Your task to perform on an android device: Go to Google maps Image 0: 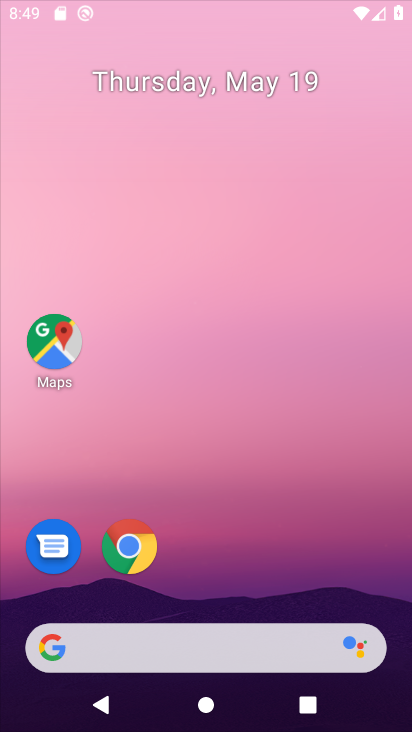
Step 0: press back button
Your task to perform on an android device: Go to Google maps Image 1: 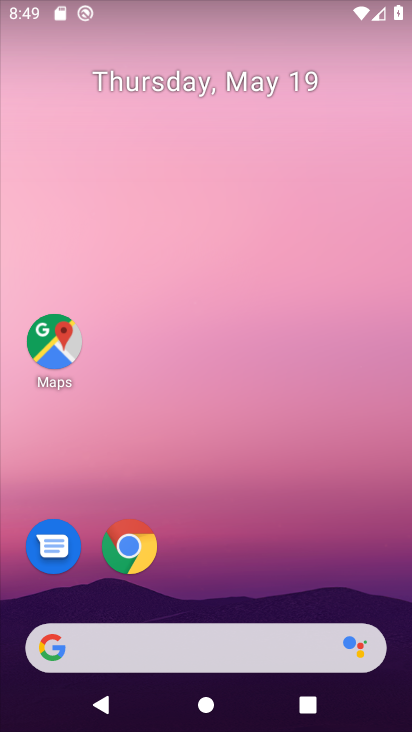
Step 1: drag from (296, 698) to (254, 135)
Your task to perform on an android device: Go to Google maps Image 2: 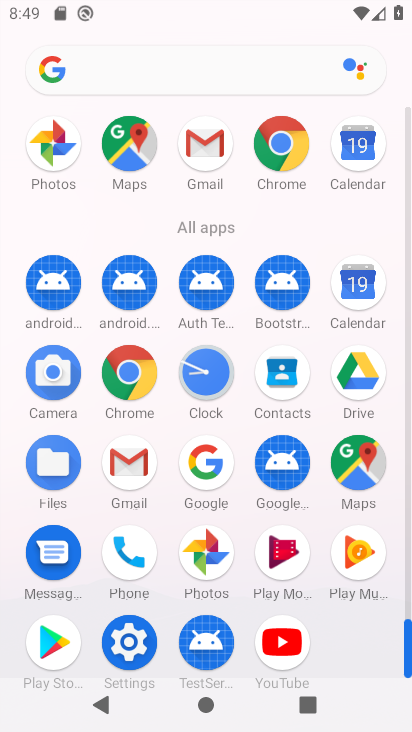
Step 2: click (353, 459)
Your task to perform on an android device: Go to Google maps Image 3: 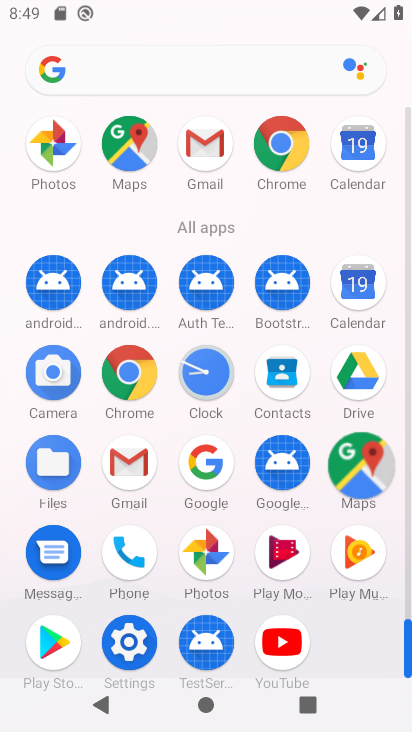
Step 3: click (354, 459)
Your task to perform on an android device: Go to Google maps Image 4: 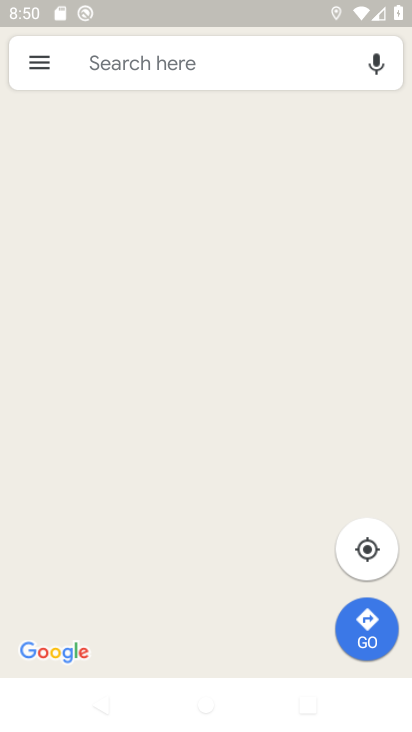
Step 4: press back button
Your task to perform on an android device: Go to Google maps Image 5: 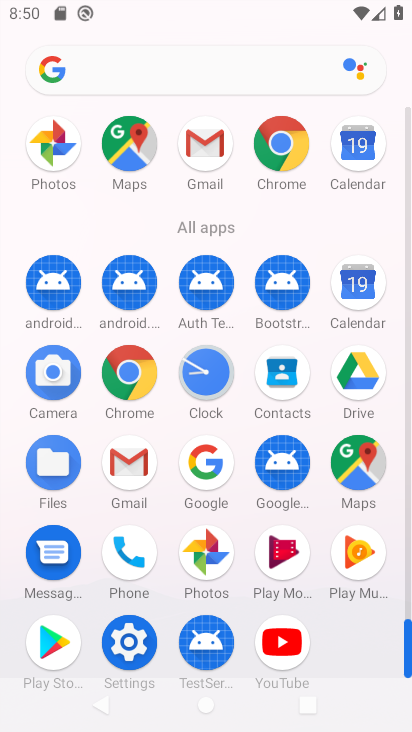
Step 5: click (344, 449)
Your task to perform on an android device: Go to Google maps Image 6: 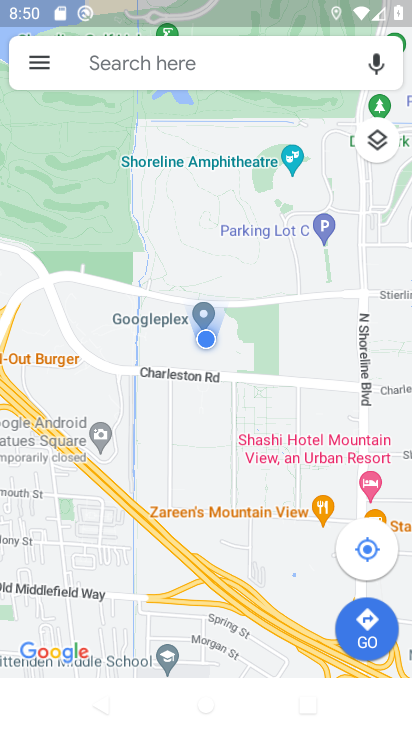
Step 6: press back button
Your task to perform on an android device: Go to Google maps Image 7: 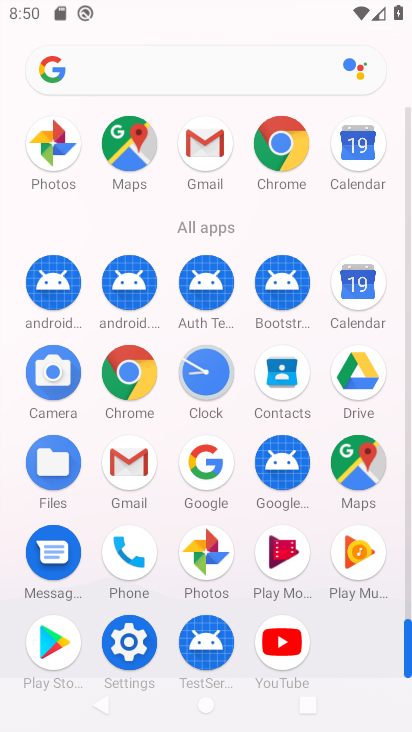
Step 7: click (352, 462)
Your task to perform on an android device: Go to Google maps Image 8: 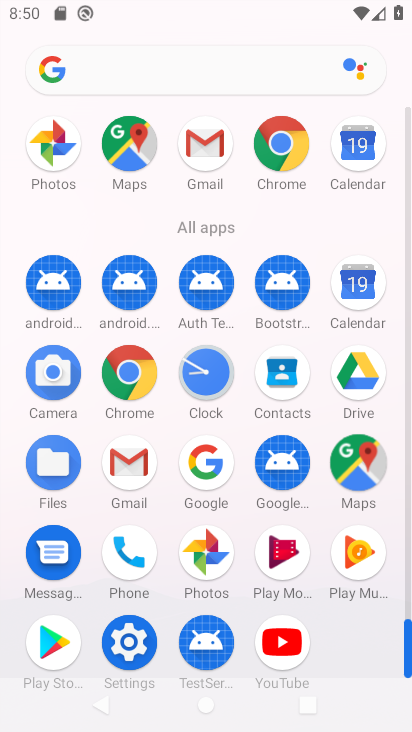
Step 8: click (352, 462)
Your task to perform on an android device: Go to Google maps Image 9: 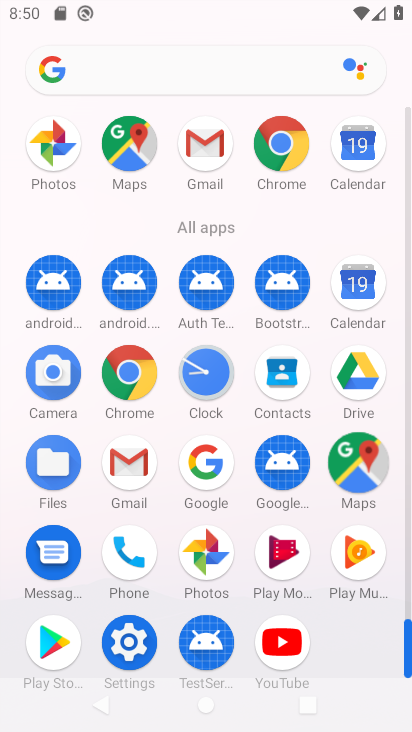
Step 9: click (353, 461)
Your task to perform on an android device: Go to Google maps Image 10: 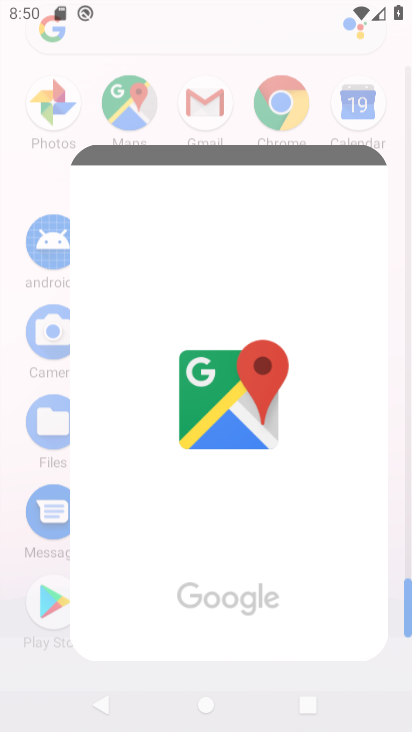
Step 10: click (355, 463)
Your task to perform on an android device: Go to Google maps Image 11: 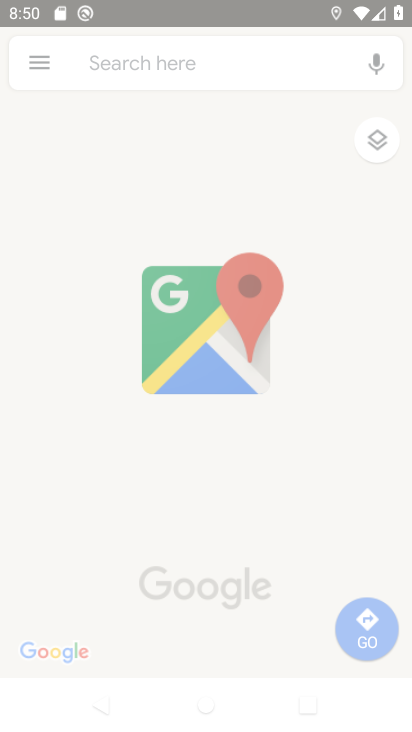
Step 11: click (354, 464)
Your task to perform on an android device: Go to Google maps Image 12: 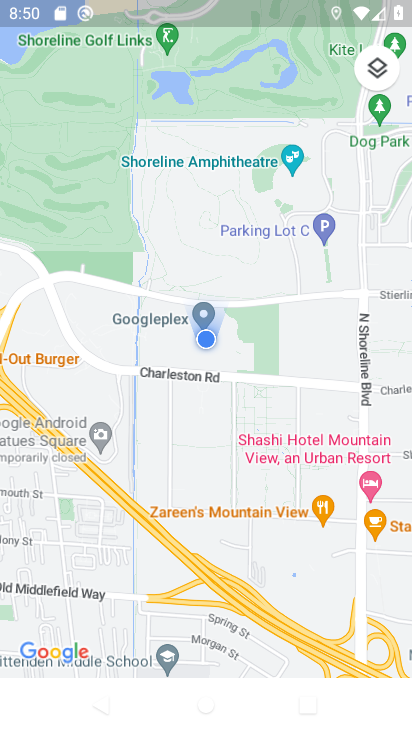
Step 12: task complete